Your task to perform on an android device: Search for the best selling book on Amazon. Image 0: 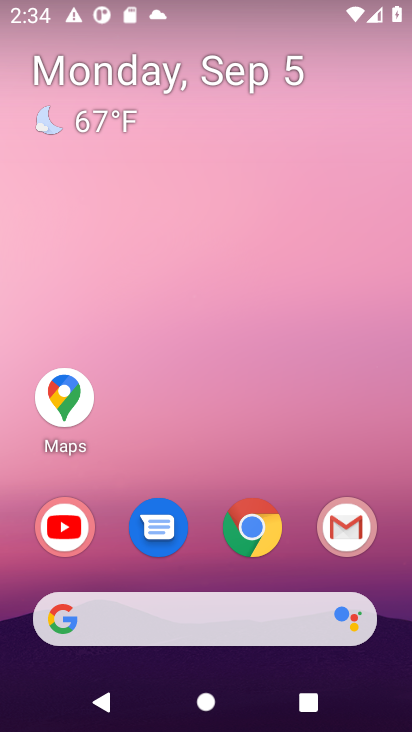
Step 0: click (261, 535)
Your task to perform on an android device: Search for the best selling book on Amazon. Image 1: 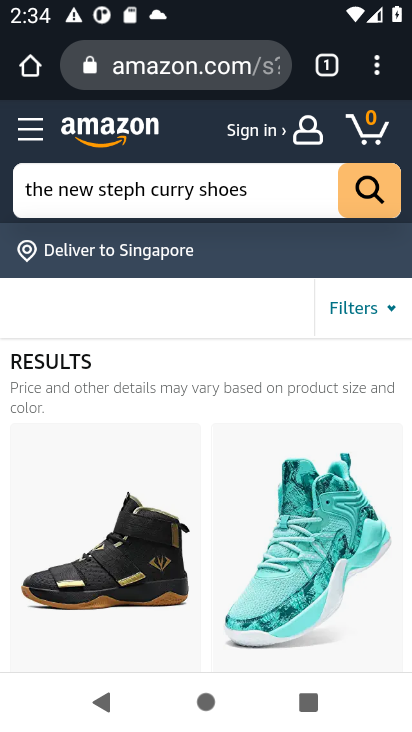
Step 1: click (170, 178)
Your task to perform on an android device: Search for the best selling book on Amazon. Image 2: 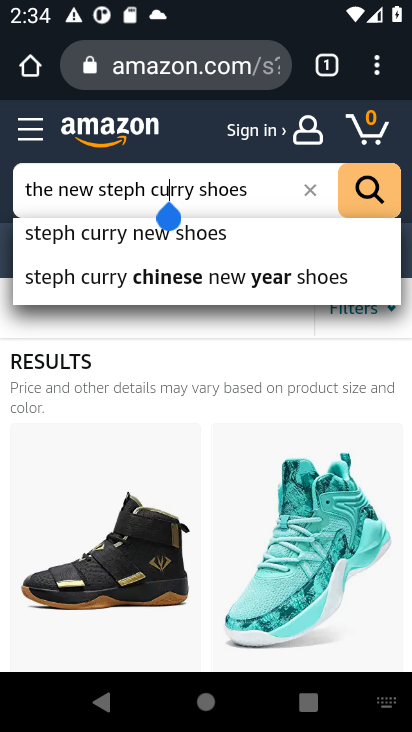
Step 2: click (318, 183)
Your task to perform on an android device: Search for the best selling book on Amazon. Image 3: 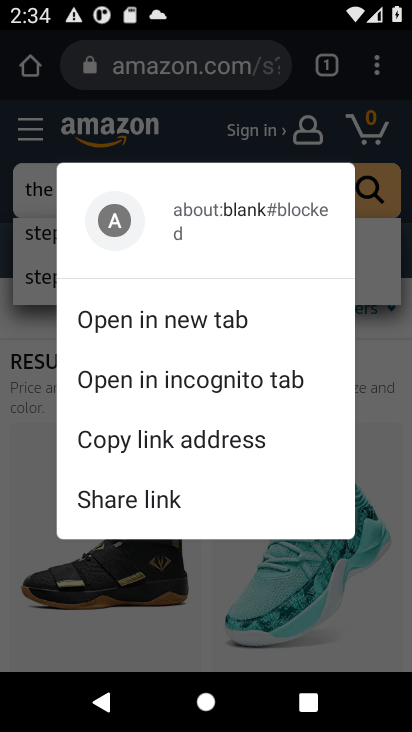
Step 3: click (44, 189)
Your task to perform on an android device: Search for the best selling book on Amazon. Image 4: 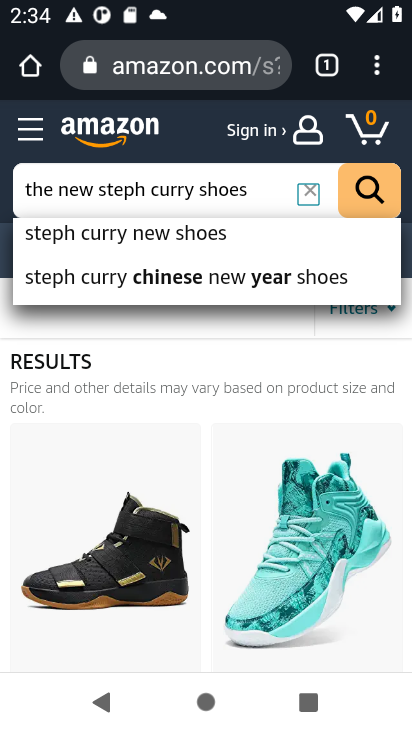
Step 4: click (310, 183)
Your task to perform on an android device: Search for the best selling book on Amazon. Image 5: 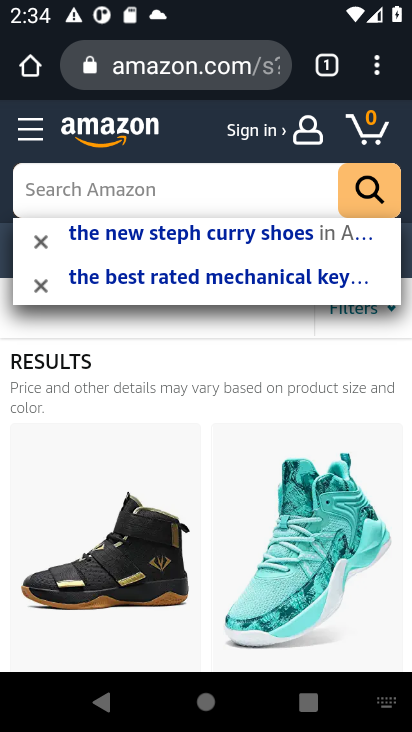
Step 5: type " the best selling book"
Your task to perform on an android device: Search for the best selling book on Amazon. Image 6: 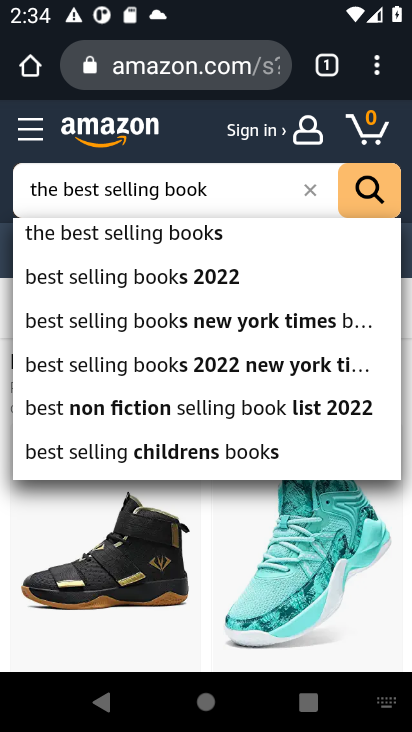
Step 6: click (73, 230)
Your task to perform on an android device: Search for the best selling book on Amazon. Image 7: 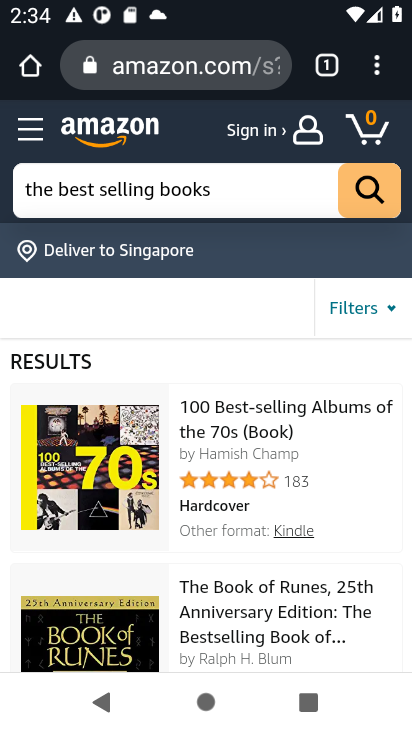
Step 7: task complete